Your task to perform on an android device: create a new album in the google photos Image 0: 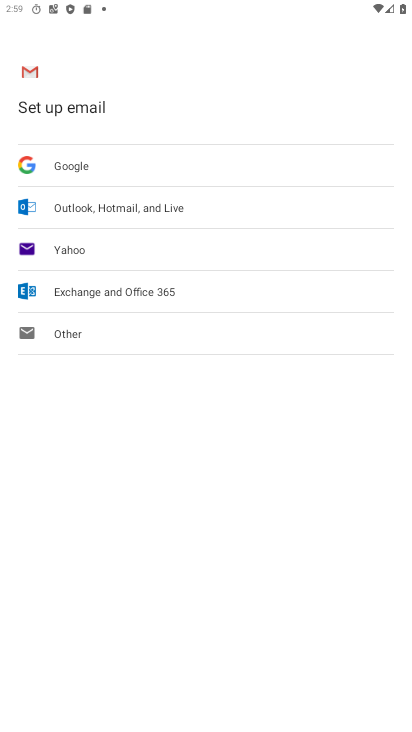
Step 0: press home button
Your task to perform on an android device: create a new album in the google photos Image 1: 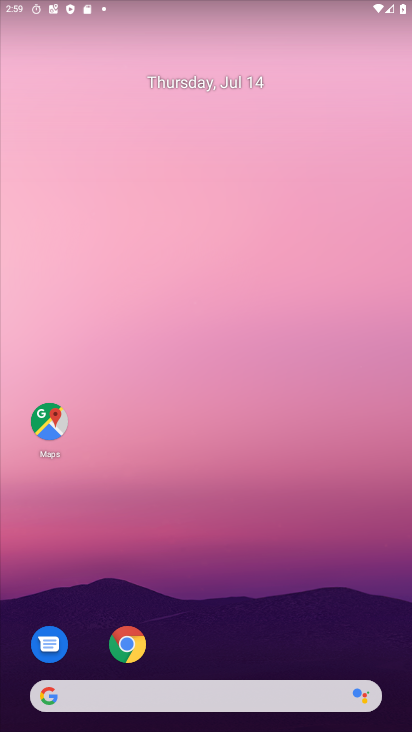
Step 1: drag from (29, 710) to (265, 254)
Your task to perform on an android device: create a new album in the google photos Image 2: 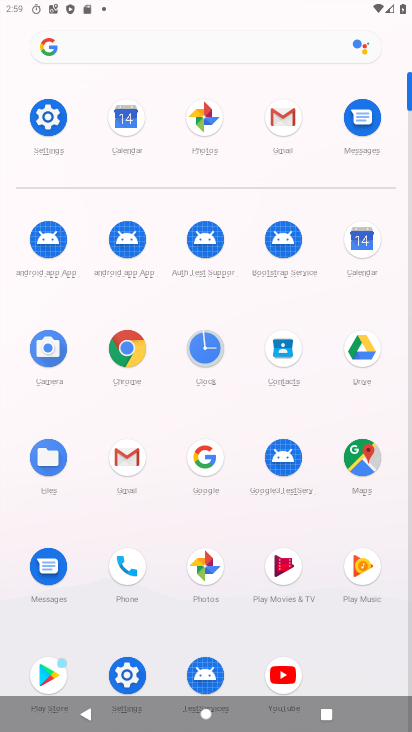
Step 2: click (220, 587)
Your task to perform on an android device: create a new album in the google photos Image 3: 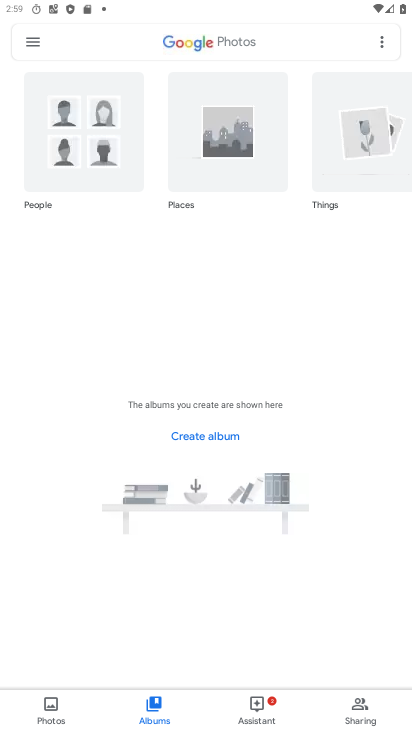
Step 3: click (56, 693)
Your task to perform on an android device: create a new album in the google photos Image 4: 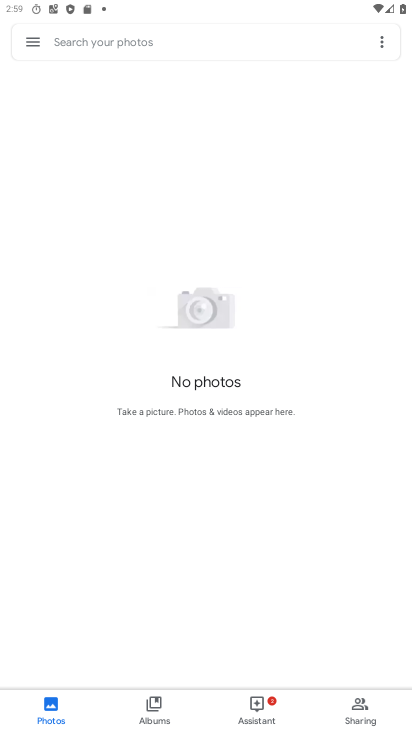
Step 4: click (155, 716)
Your task to perform on an android device: create a new album in the google photos Image 5: 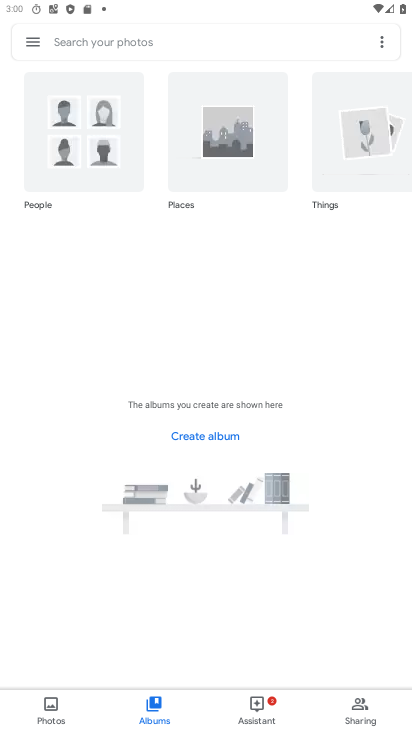
Step 5: task complete